Your task to perform on an android device: Open settings Image 0: 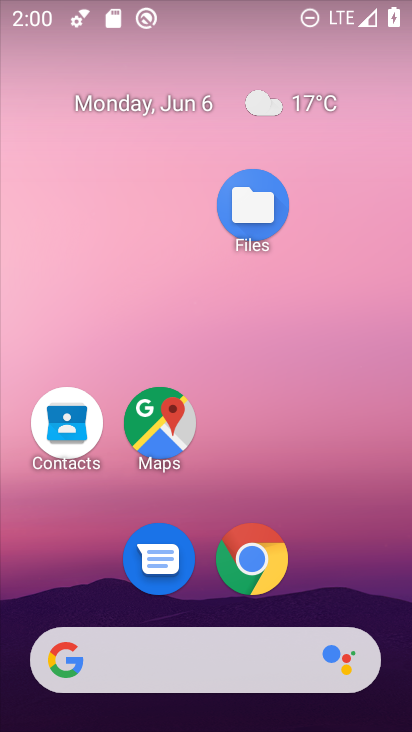
Step 0: drag from (225, 670) to (280, 277)
Your task to perform on an android device: Open settings Image 1: 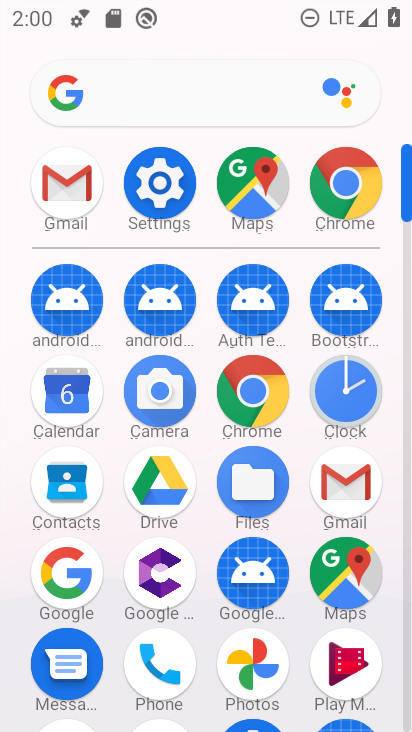
Step 1: drag from (200, 426) to (235, 145)
Your task to perform on an android device: Open settings Image 2: 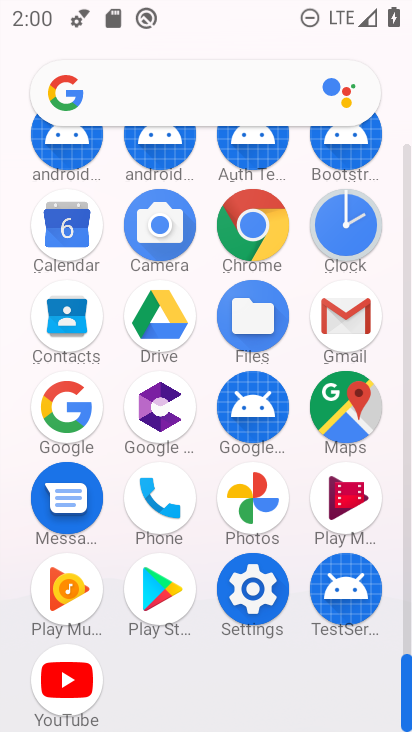
Step 2: click (260, 605)
Your task to perform on an android device: Open settings Image 3: 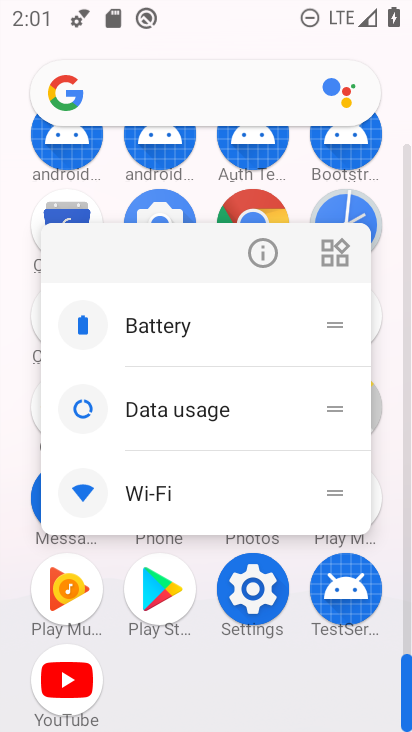
Step 3: click (280, 592)
Your task to perform on an android device: Open settings Image 4: 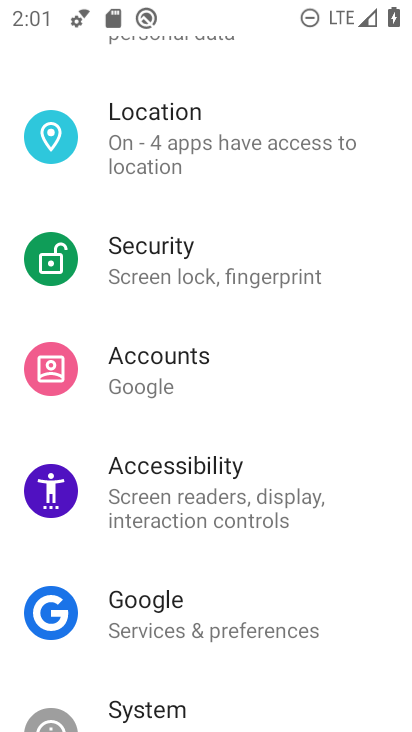
Step 4: task complete